Your task to perform on an android device: What's the weather going to be tomorrow? Image 0: 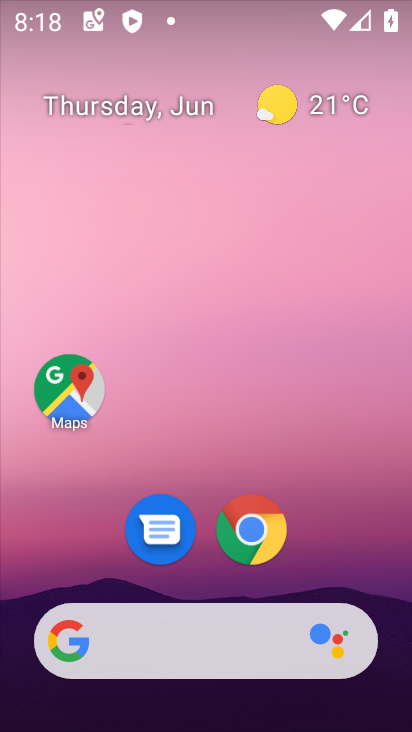
Step 0: click (195, 66)
Your task to perform on an android device: What's the weather going to be tomorrow? Image 1: 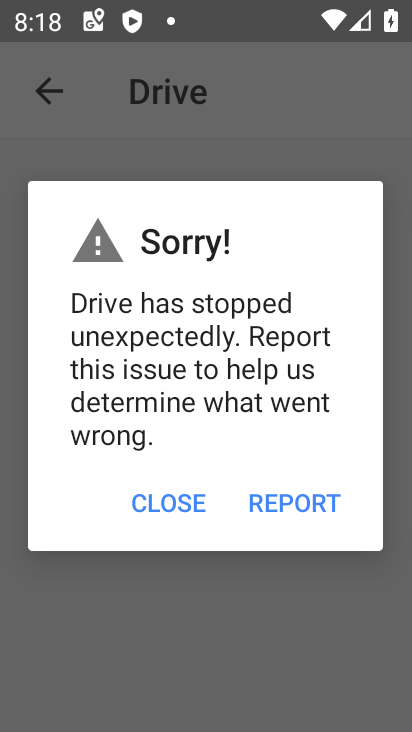
Step 1: press home button
Your task to perform on an android device: What's the weather going to be tomorrow? Image 2: 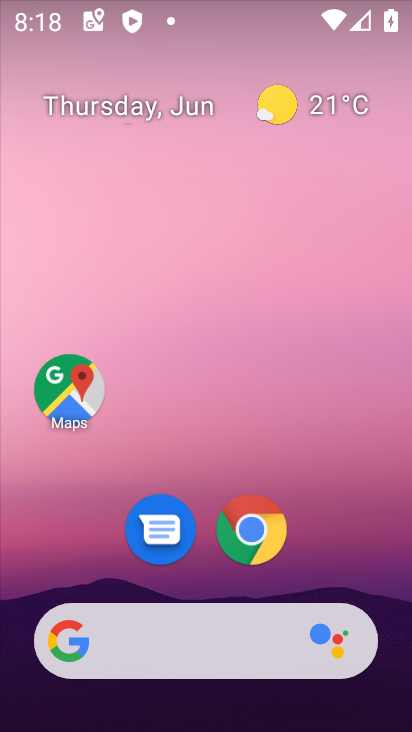
Step 2: click (176, 639)
Your task to perform on an android device: What's the weather going to be tomorrow? Image 3: 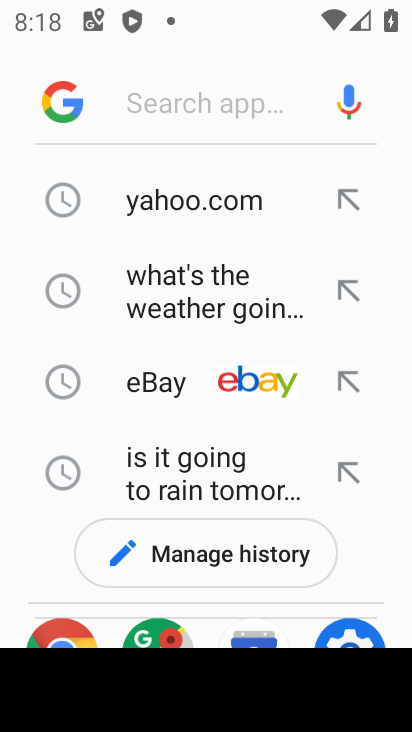
Step 3: click (199, 290)
Your task to perform on an android device: What's the weather going to be tomorrow? Image 4: 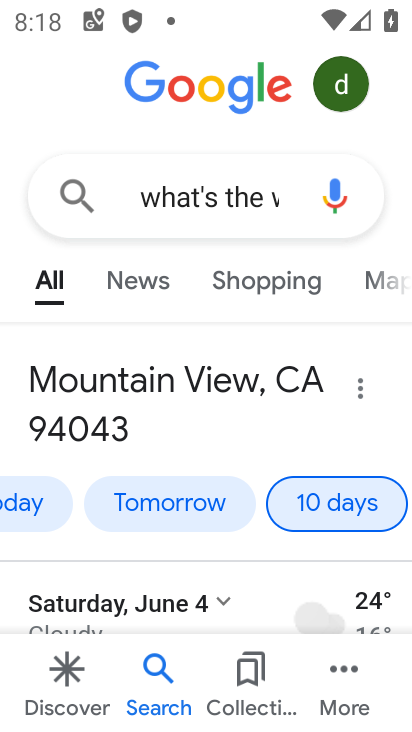
Step 4: click (165, 498)
Your task to perform on an android device: What's the weather going to be tomorrow? Image 5: 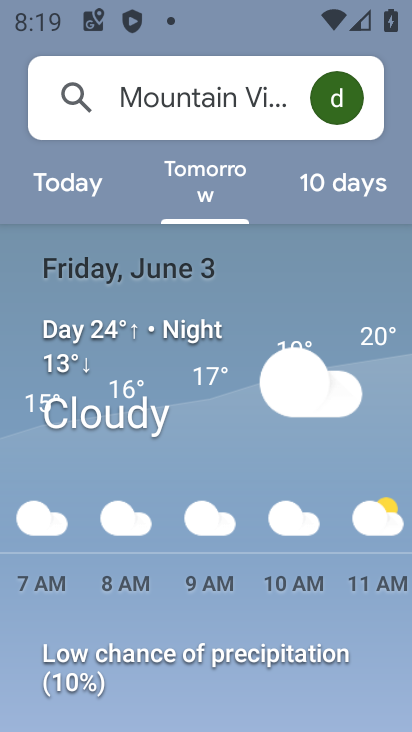
Step 5: task complete